Your task to perform on an android device: read, delete, or share a saved page in the chrome app Image 0: 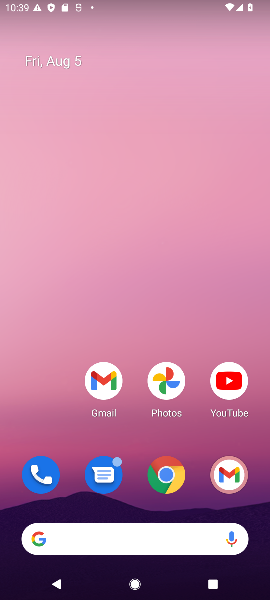
Step 0: click (158, 478)
Your task to perform on an android device: read, delete, or share a saved page in the chrome app Image 1: 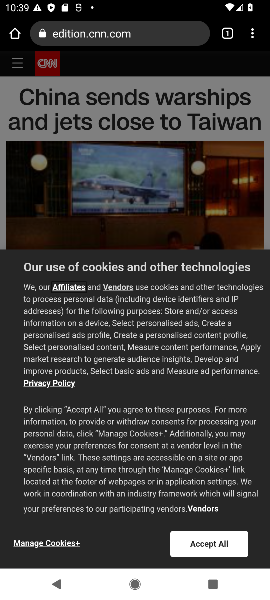
Step 1: click (254, 32)
Your task to perform on an android device: read, delete, or share a saved page in the chrome app Image 2: 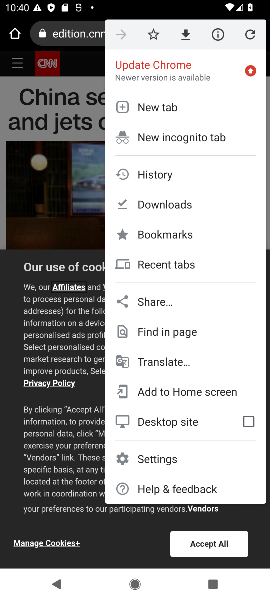
Step 2: click (178, 205)
Your task to perform on an android device: read, delete, or share a saved page in the chrome app Image 3: 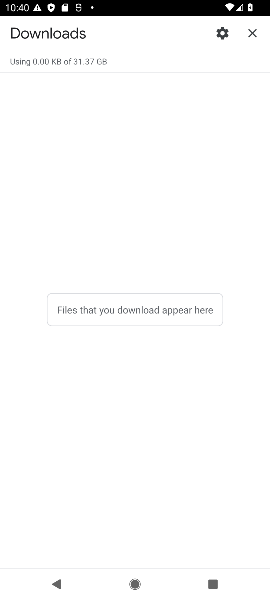
Step 3: task complete